Your task to perform on an android device: Go to network settings Image 0: 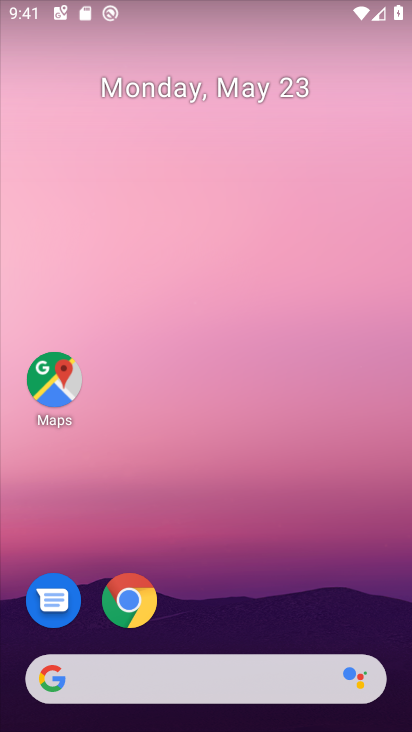
Step 0: drag from (217, 725) to (220, 41)
Your task to perform on an android device: Go to network settings Image 1: 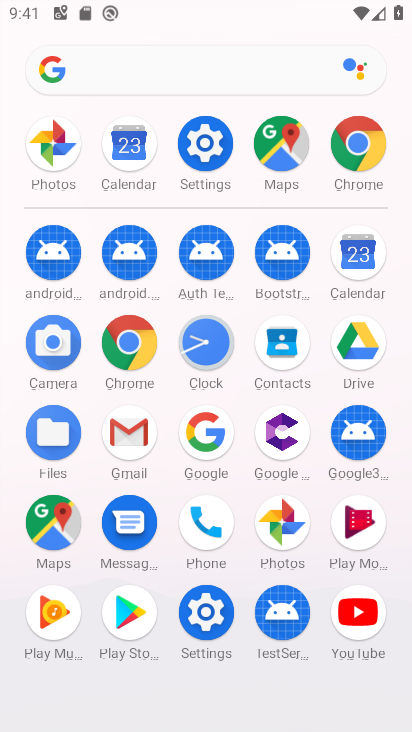
Step 1: click (213, 142)
Your task to perform on an android device: Go to network settings Image 2: 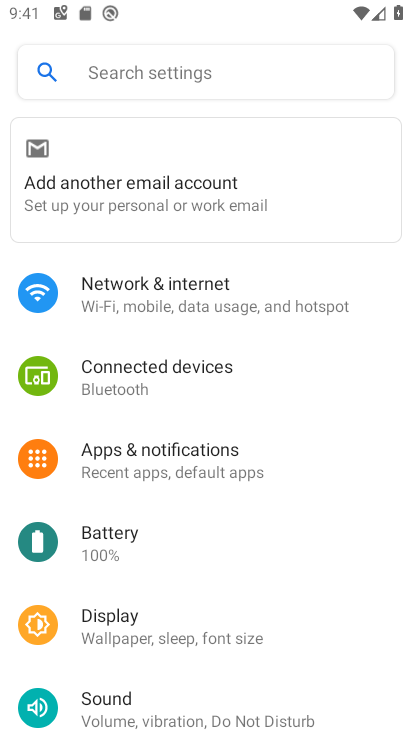
Step 2: click (129, 290)
Your task to perform on an android device: Go to network settings Image 3: 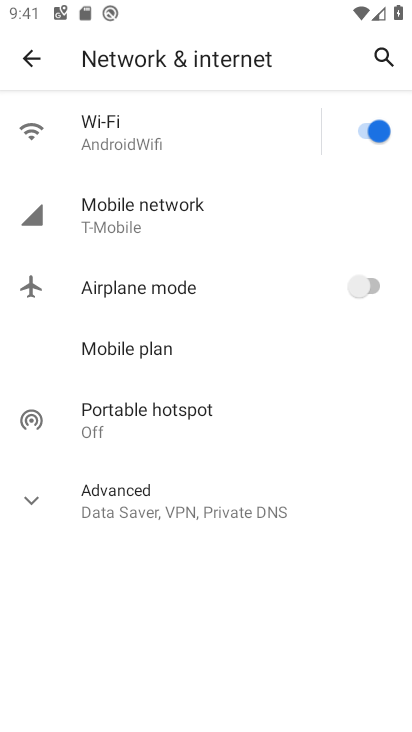
Step 3: click (121, 211)
Your task to perform on an android device: Go to network settings Image 4: 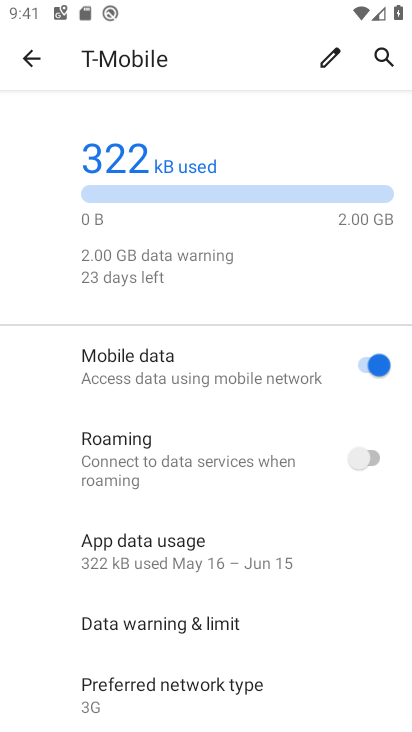
Step 4: task complete